Your task to perform on an android device: Go to accessibility settings Image 0: 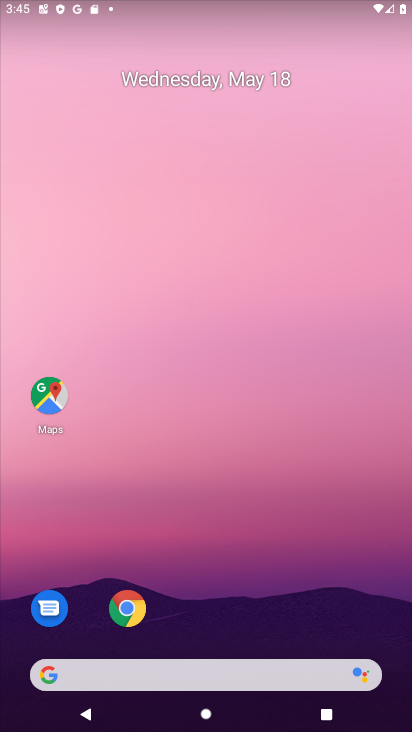
Step 0: drag from (237, 595) to (290, 178)
Your task to perform on an android device: Go to accessibility settings Image 1: 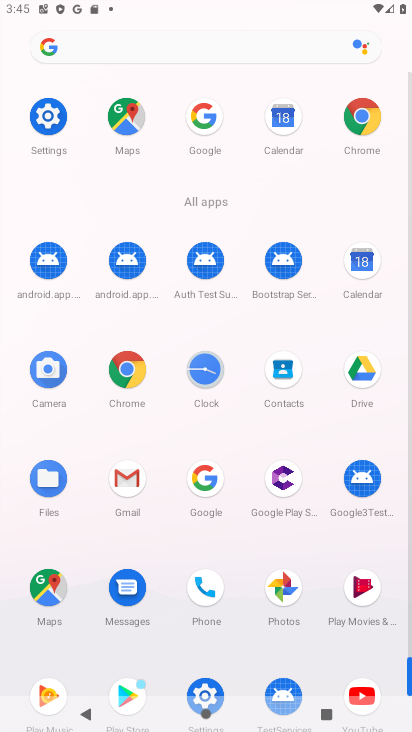
Step 1: click (209, 684)
Your task to perform on an android device: Go to accessibility settings Image 2: 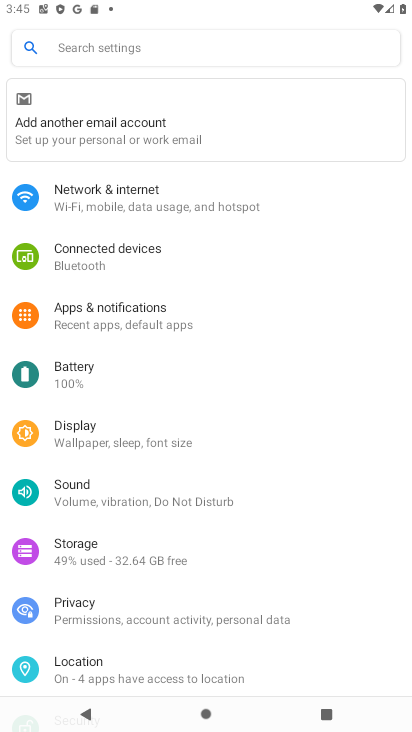
Step 2: drag from (188, 584) to (259, 229)
Your task to perform on an android device: Go to accessibility settings Image 3: 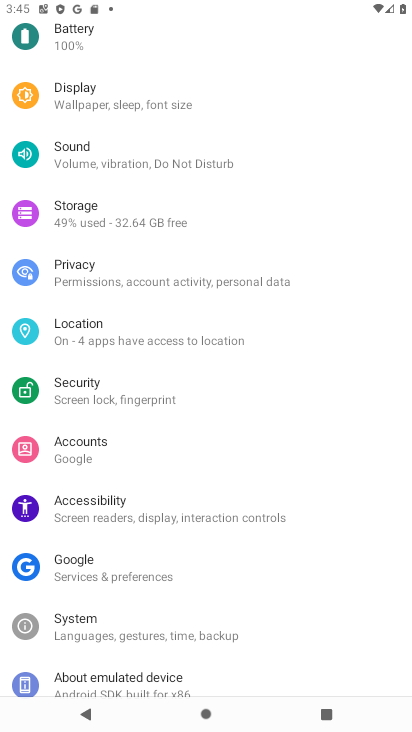
Step 3: click (122, 513)
Your task to perform on an android device: Go to accessibility settings Image 4: 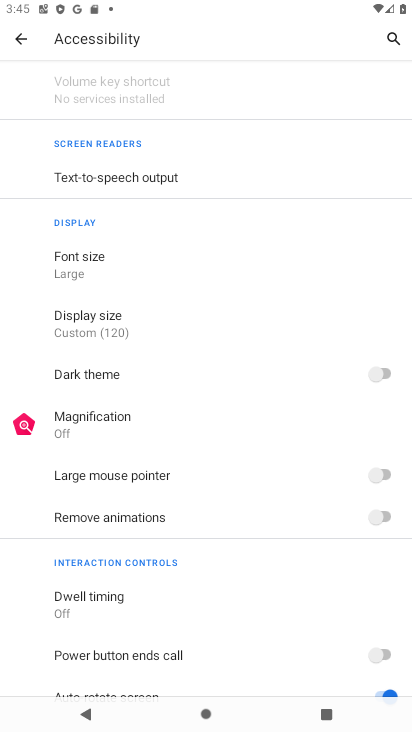
Step 4: task complete